Your task to perform on an android device: toggle pop-ups in chrome Image 0: 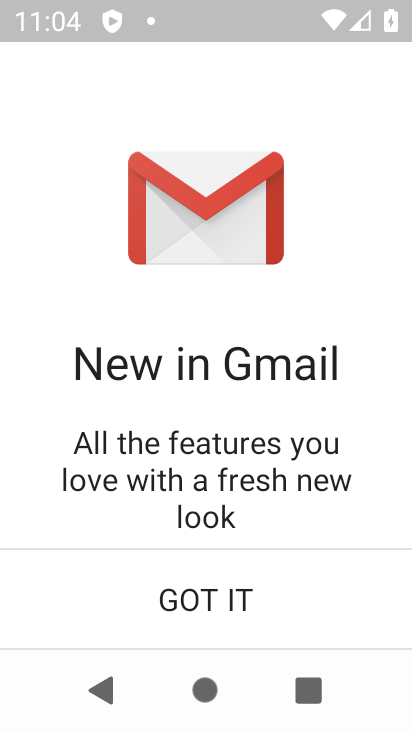
Step 0: click (187, 588)
Your task to perform on an android device: toggle pop-ups in chrome Image 1: 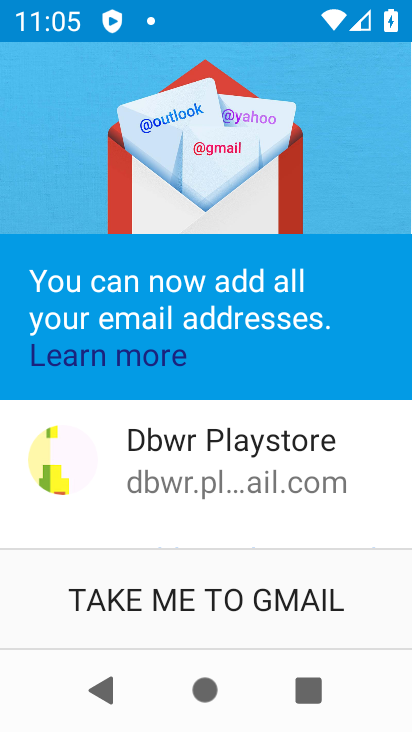
Step 1: click (179, 592)
Your task to perform on an android device: toggle pop-ups in chrome Image 2: 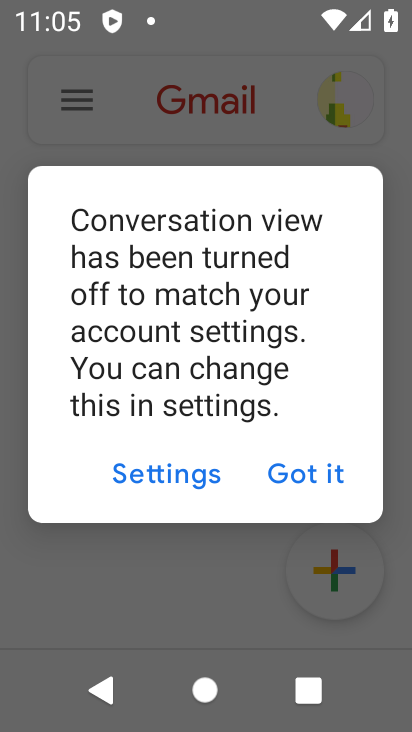
Step 2: click (315, 481)
Your task to perform on an android device: toggle pop-ups in chrome Image 3: 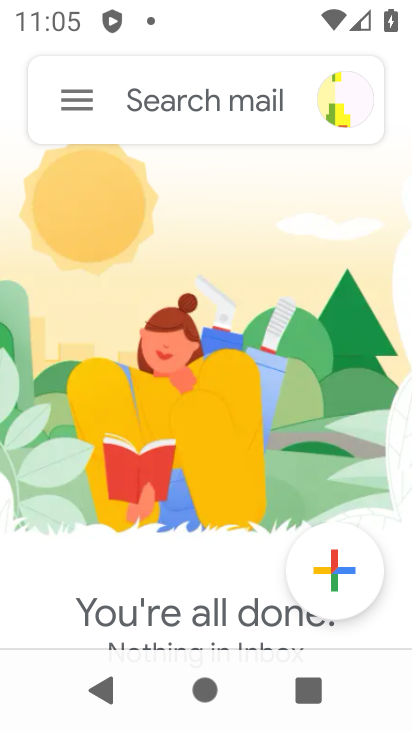
Step 3: press back button
Your task to perform on an android device: toggle pop-ups in chrome Image 4: 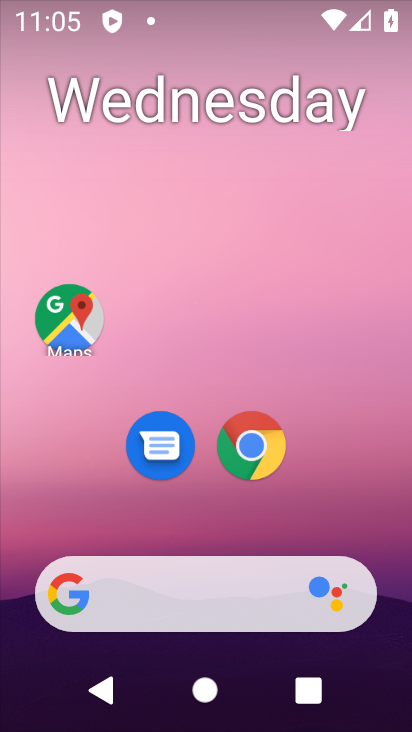
Step 4: click (239, 445)
Your task to perform on an android device: toggle pop-ups in chrome Image 5: 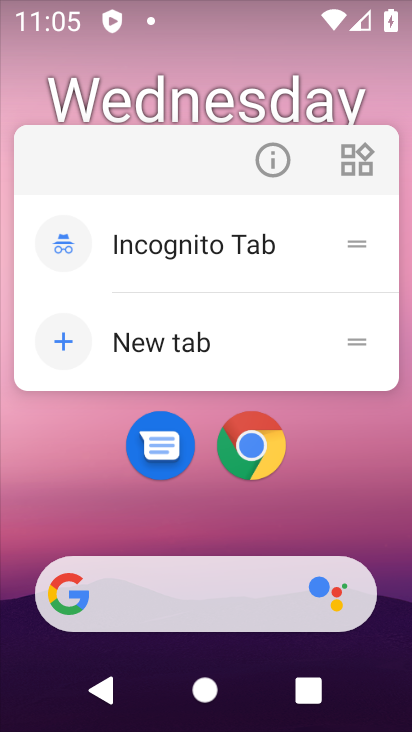
Step 5: click (253, 444)
Your task to perform on an android device: toggle pop-ups in chrome Image 6: 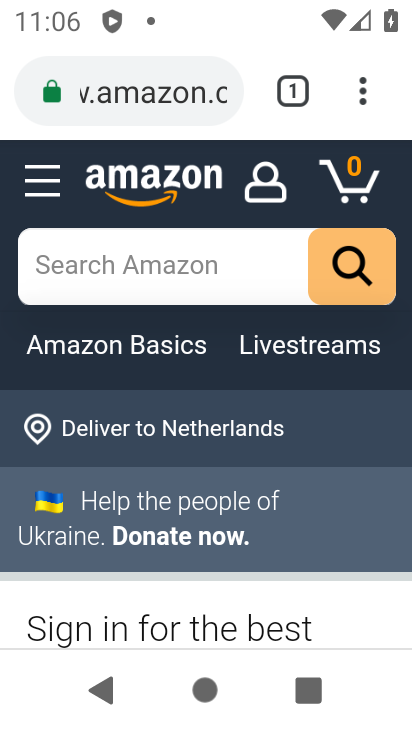
Step 6: drag from (365, 91) to (101, 463)
Your task to perform on an android device: toggle pop-ups in chrome Image 7: 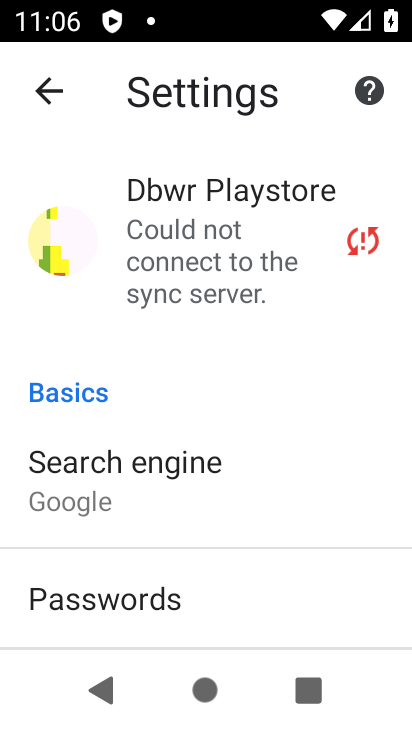
Step 7: drag from (178, 555) to (247, 87)
Your task to perform on an android device: toggle pop-ups in chrome Image 8: 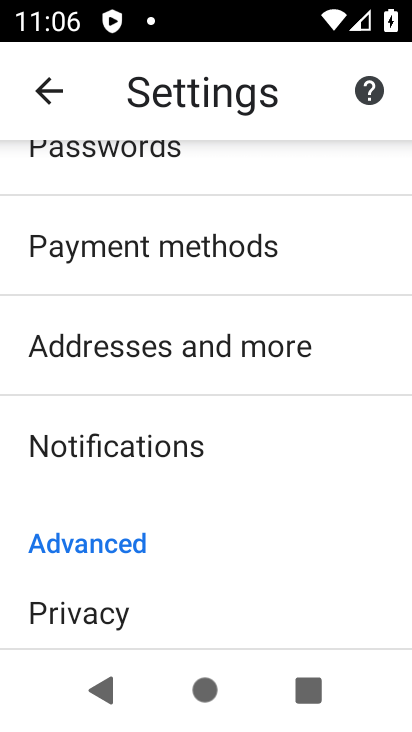
Step 8: drag from (168, 594) to (282, 98)
Your task to perform on an android device: toggle pop-ups in chrome Image 9: 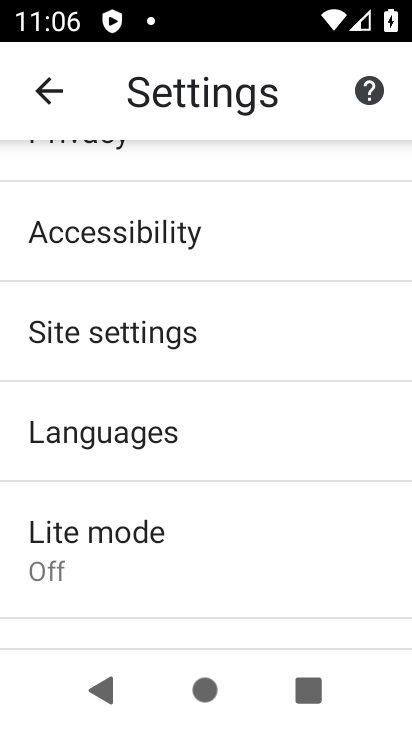
Step 9: click (154, 338)
Your task to perform on an android device: toggle pop-ups in chrome Image 10: 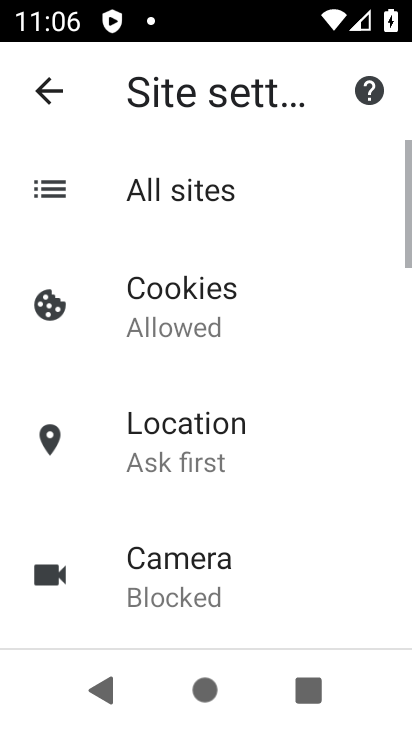
Step 10: drag from (174, 576) to (256, 17)
Your task to perform on an android device: toggle pop-ups in chrome Image 11: 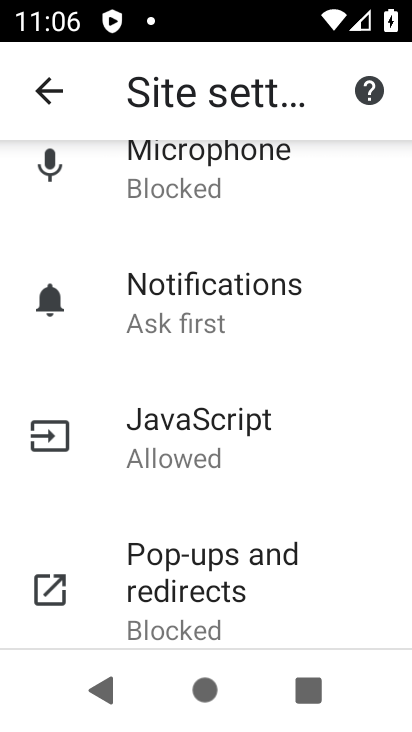
Step 11: click (213, 581)
Your task to perform on an android device: toggle pop-ups in chrome Image 12: 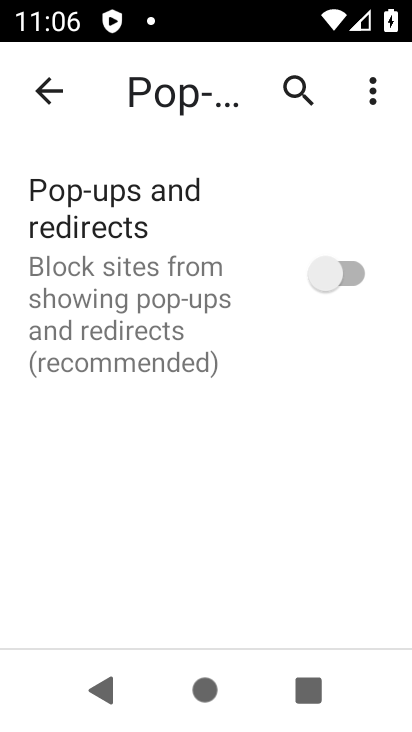
Step 12: click (339, 265)
Your task to perform on an android device: toggle pop-ups in chrome Image 13: 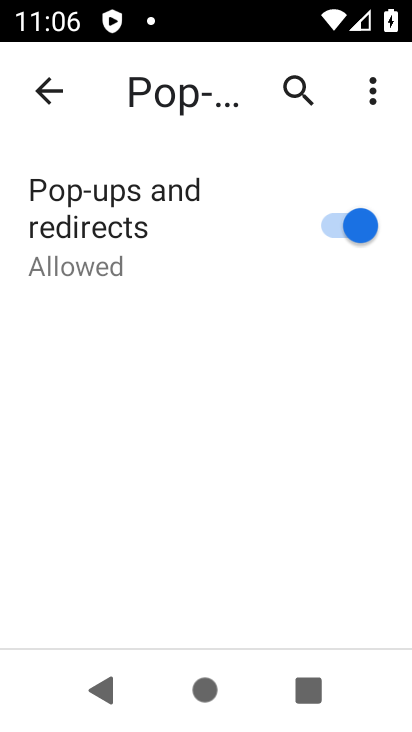
Step 13: task complete